Your task to perform on an android device: add a contact Image 0: 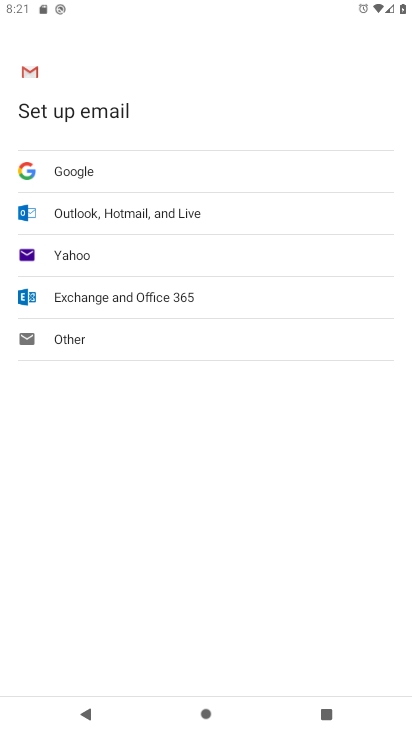
Step 0: press home button
Your task to perform on an android device: add a contact Image 1: 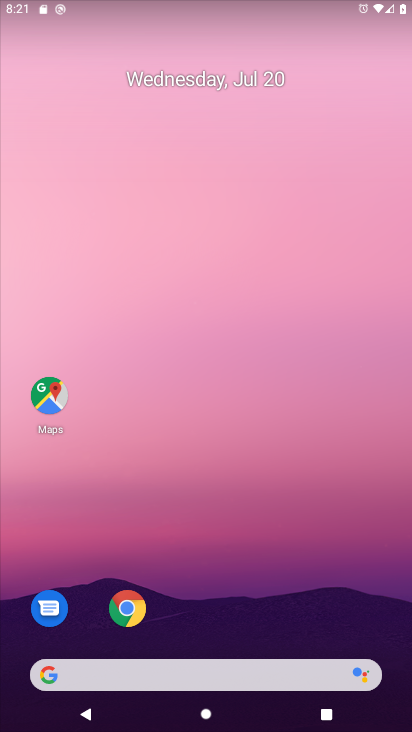
Step 1: drag from (287, 650) to (283, 31)
Your task to perform on an android device: add a contact Image 2: 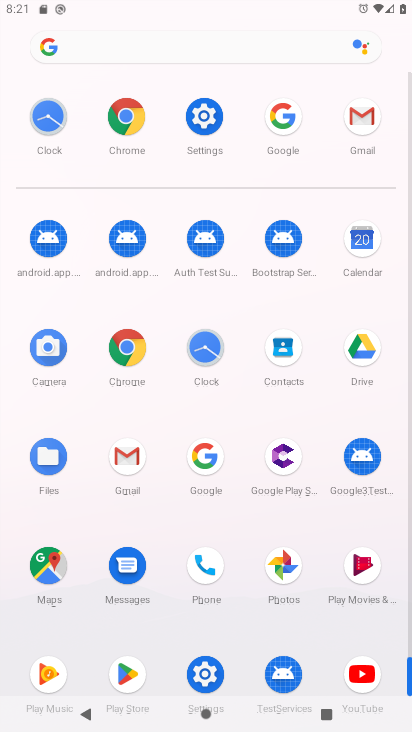
Step 2: click (212, 566)
Your task to perform on an android device: add a contact Image 3: 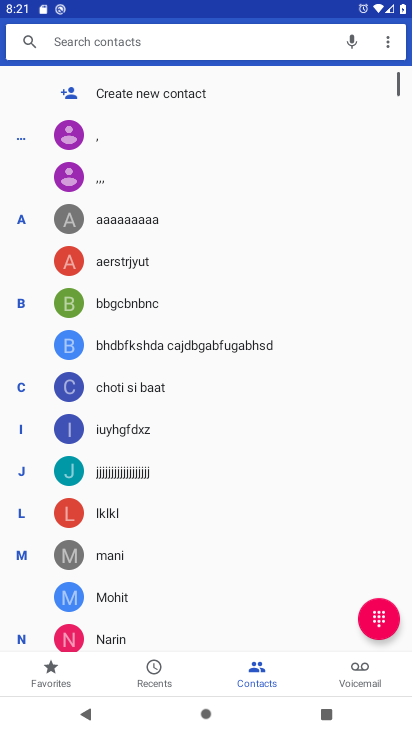
Step 3: click (178, 94)
Your task to perform on an android device: add a contact Image 4: 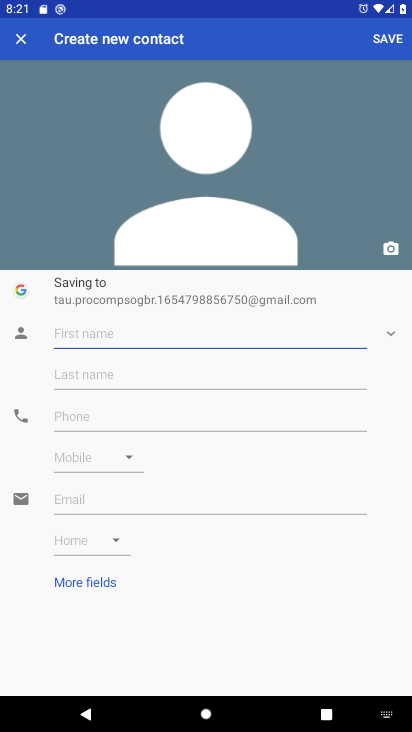
Step 4: click (152, 335)
Your task to perform on an android device: add a contact Image 5: 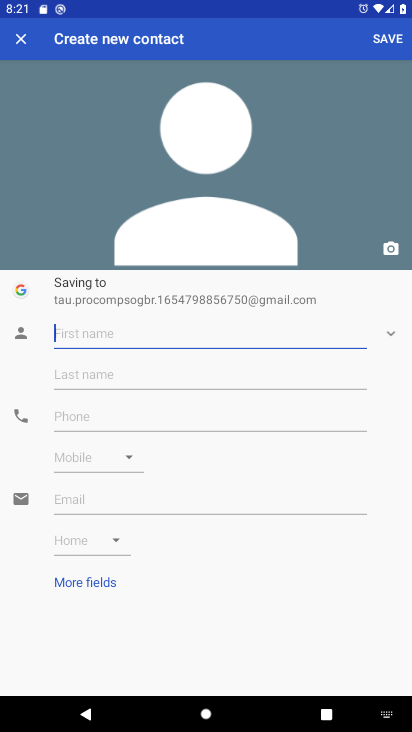
Step 5: type "jaatshab "
Your task to perform on an android device: add a contact Image 6: 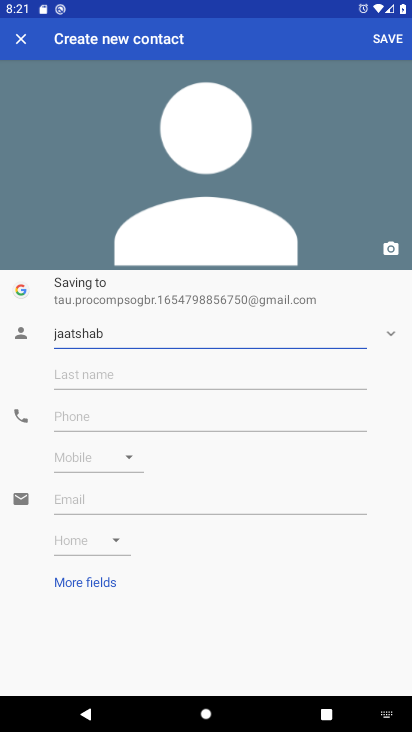
Step 6: click (113, 414)
Your task to perform on an android device: add a contact Image 7: 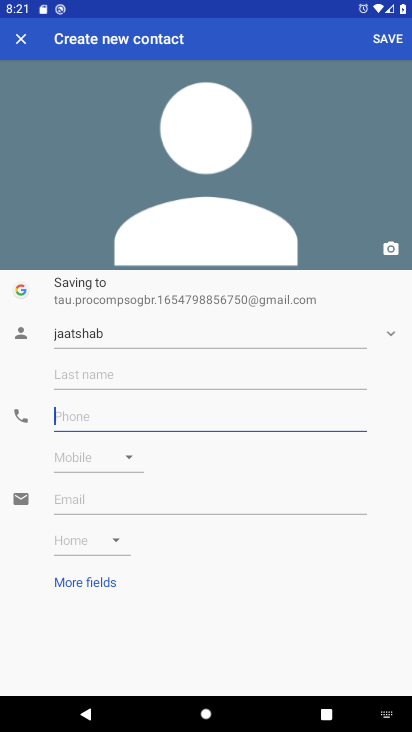
Step 7: type "0987654321 "
Your task to perform on an android device: add a contact Image 8: 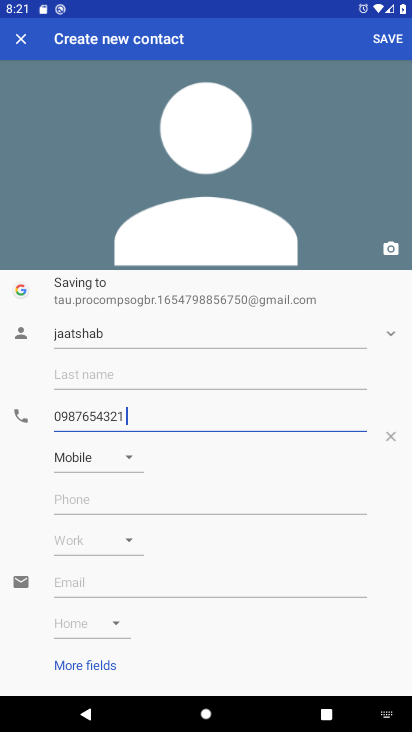
Step 8: click (390, 48)
Your task to perform on an android device: add a contact Image 9: 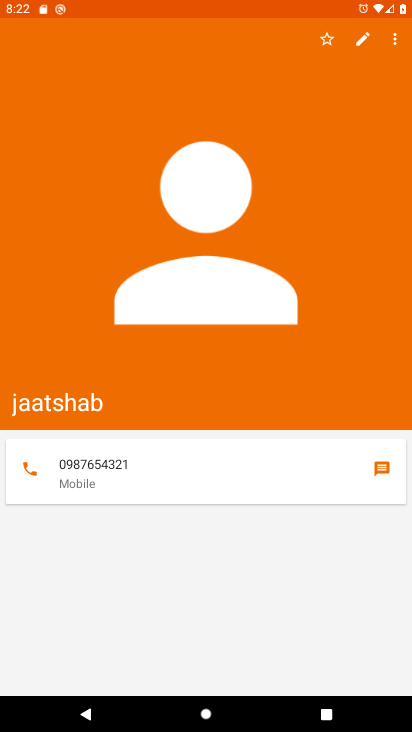
Step 9: task complete